Your task to perform on an android device: change keyboard looks Image 0: 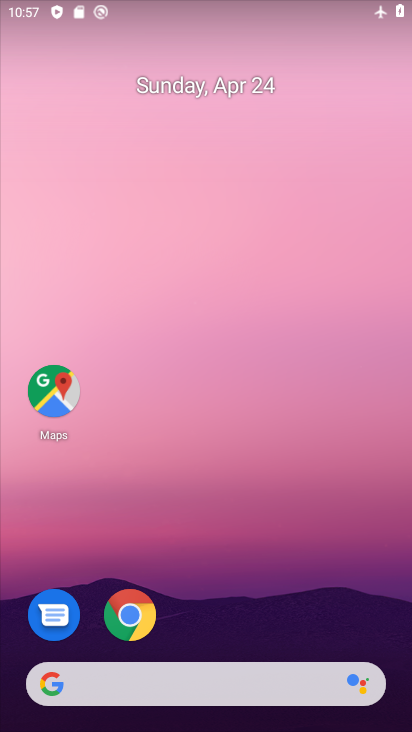
Step 0: drag from (258, 633) to (303, 110)
Your task to perform on an android device: change keyboard looks Image 1: 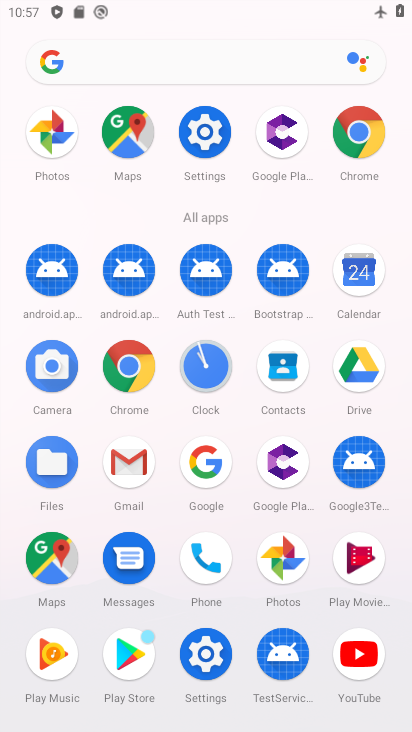
Step 1: click (204, 660)
Your task to perform on an android device: change keyboard looks Image 2: 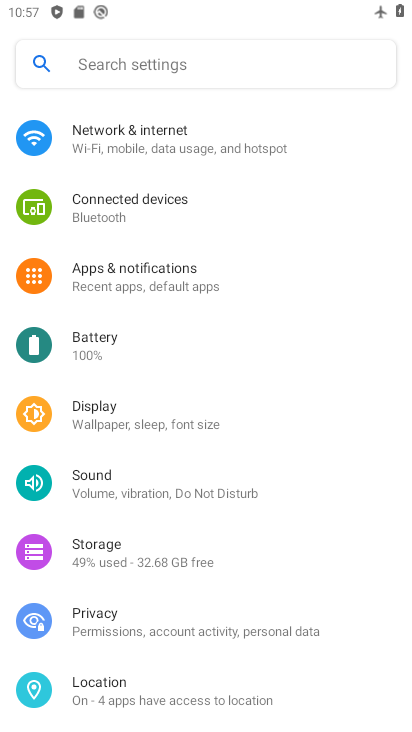
Step 2: drag from (218, 657) to (263, 239)
Your task to perform on an android device: change keyboard looks Image 3: 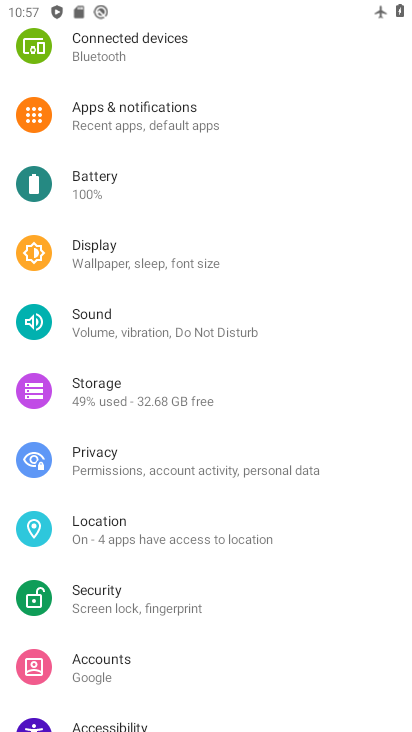
Step 3: drag from (147, 695) to (298, 147)
Your task to perform on an android device: change keyboard looks Image 4: 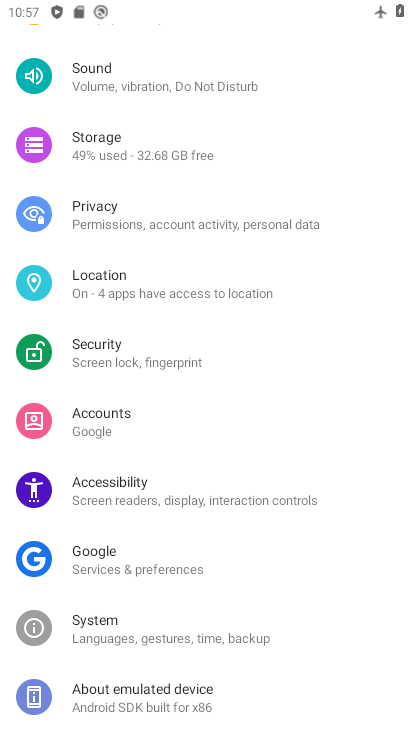
Step 4: click (142, 622)
Your task to perform on an android device: change keyboard looks Image 5: 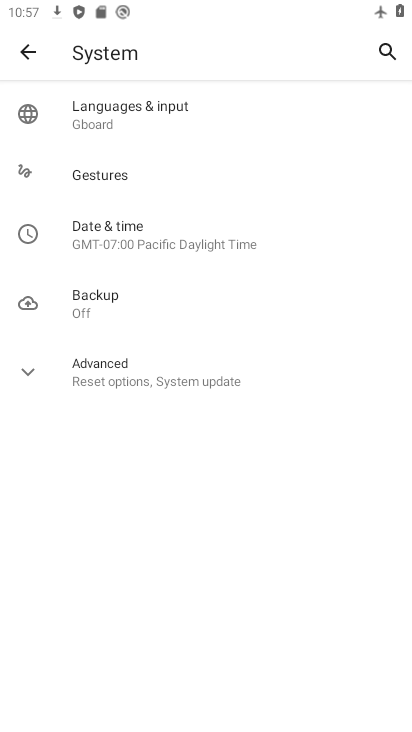
Step 5: click (174, 128)
Your task to perform on an android device: change keyboard looks Image 6: 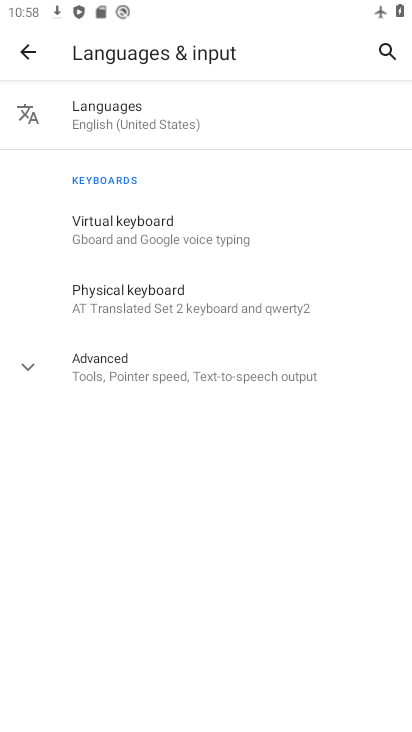
Step 6: click (174, 222)
Your task to perform on an android device: change keyboard looks Image 7: 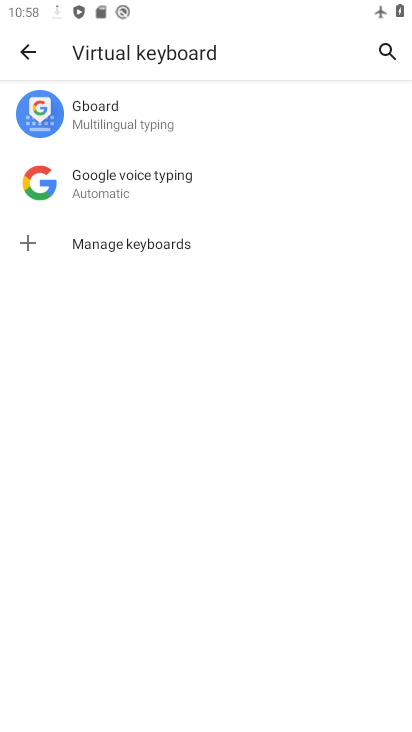
Step 7: click (122, 130)
Your task to perform on an android device: change keyboard looks Image 8: 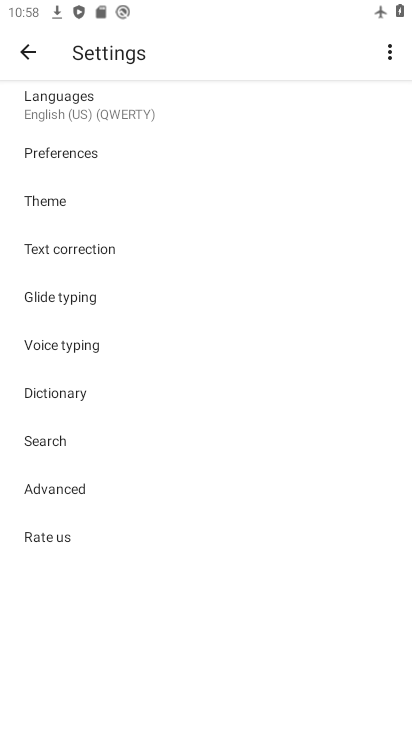
Step 8: click (133, 197)
Your task to perform on an android device: change keyboard looks Image 9: 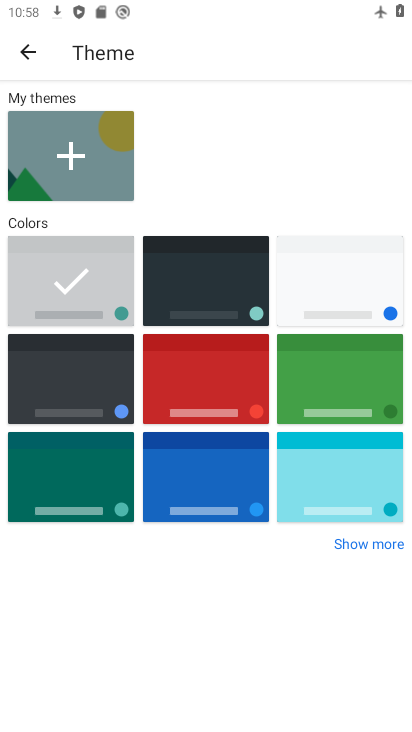
Step 9: click (173, 275)
Your task to perform on an android device: change keyboard looks Image 10: 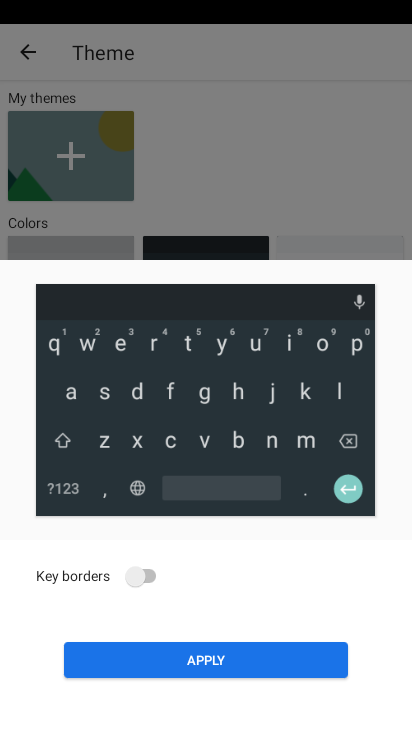
Step 10: click (256, 661)
Your task to perform on an android device: change keyboard looks Image 11: 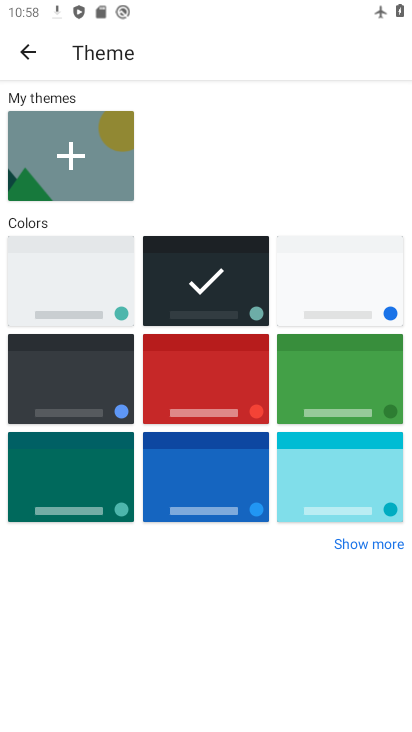
Step 11: task complete